Your task to perform on an android device: set default search engine in the chrome app Image 0: 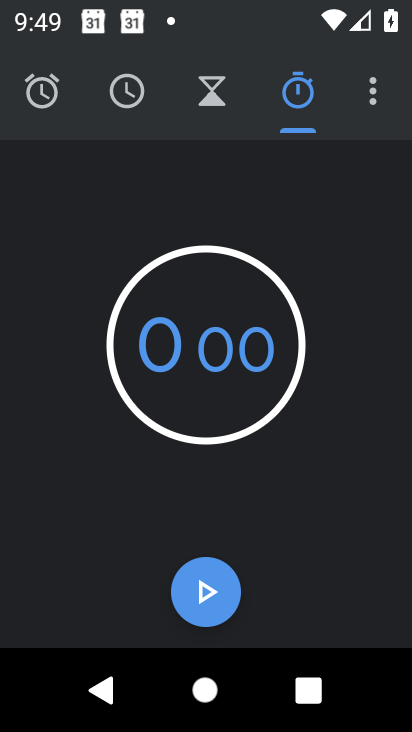
Step 0: press home button
Your task to perform on an android device: set default search engine in the chrome app Image 1: 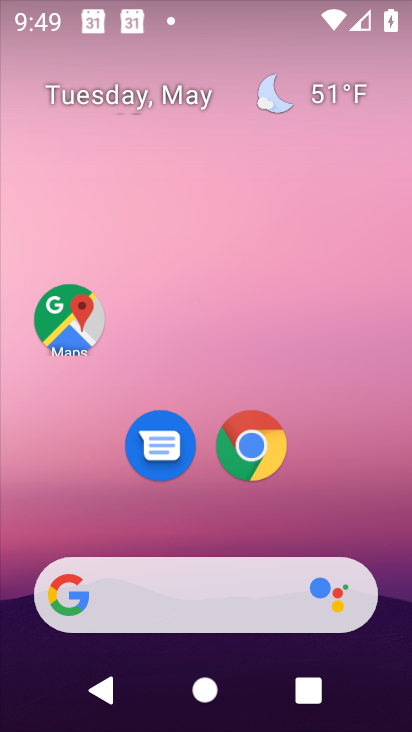
Step 1: click (256, 441)
Your task to perform on an android device: set default search engine in the chrome app Image 2: 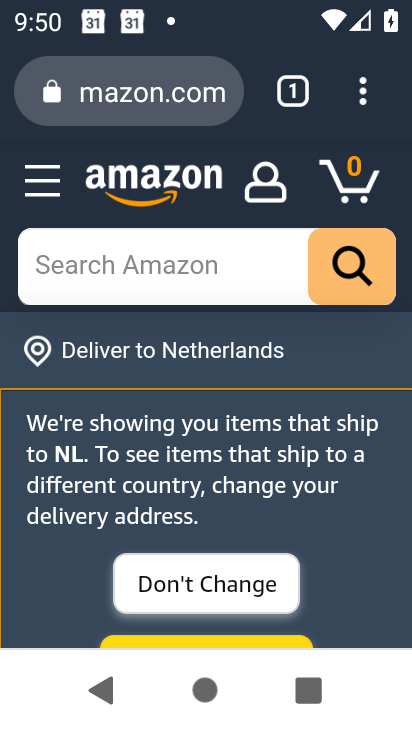
Step 2: click (368, 89)
Your task to perform on an android device: set default search engine in the chrome app Image 3: 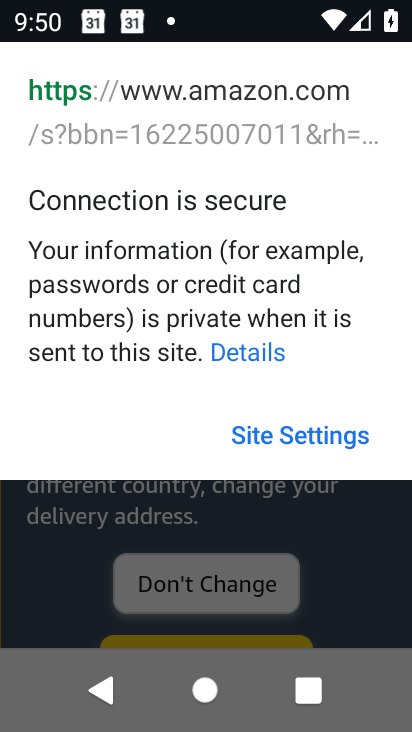
Step 3: press back button
Your task to perform on an android device: set default search engine in the chrome app Image 4: 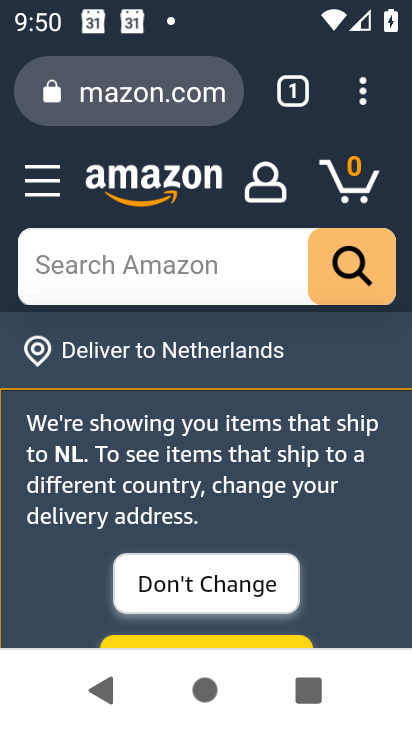
Step 4: drag from (351, 108) to (129, 472)
Your task to perform on an android device: set default search engine in the chrome app Image 5: 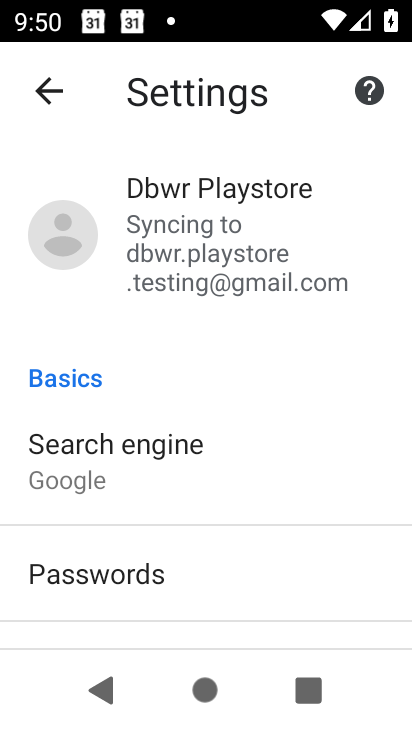
Step 5: click (125, 446)
Your task to perform on an android device: set default search engine in the chrome app Image 6: 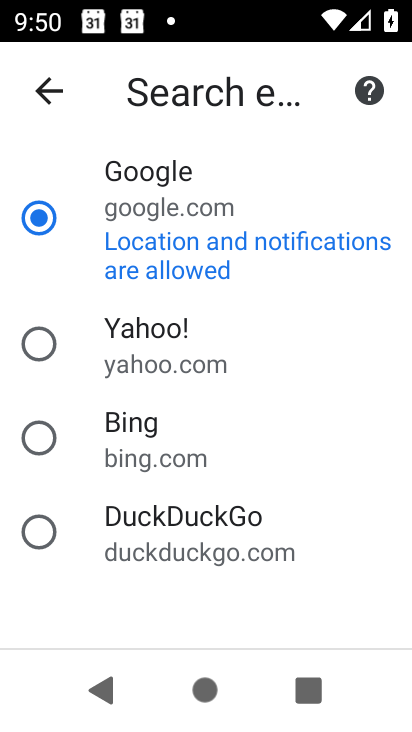
Step 6: click (99, 339)
Your task to perform on an android device: set default search engine in the chrome app Image 7: 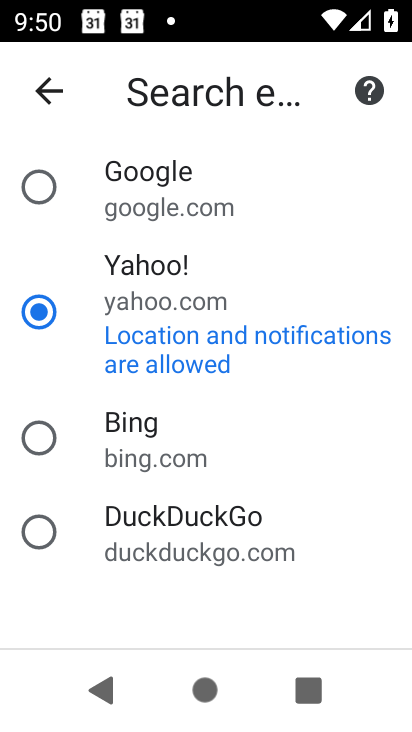
Step 7: task complete